Your task to perform on an android device: Open Chrome and go to settings Image 0: 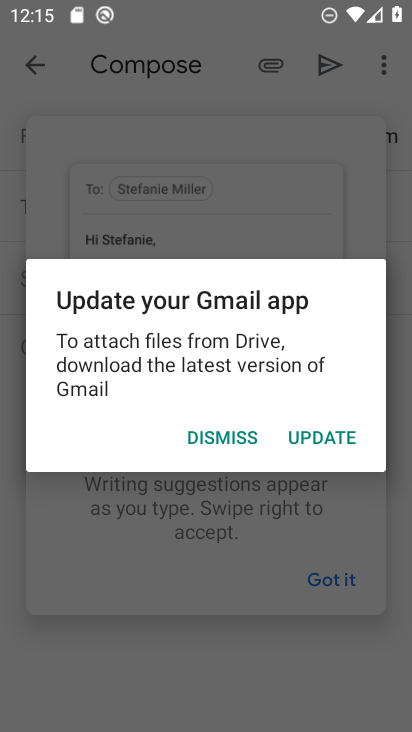
Step 0: press home button
Your task to perform on an android device: Open Chrome and go to settings Image 1: 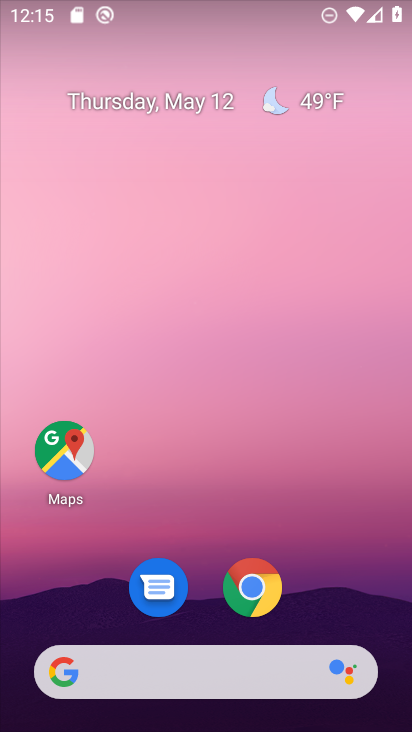
Step 1: click (257, 590)
Your task to perform on an android device: Open Chrome and go to settings Image 2: 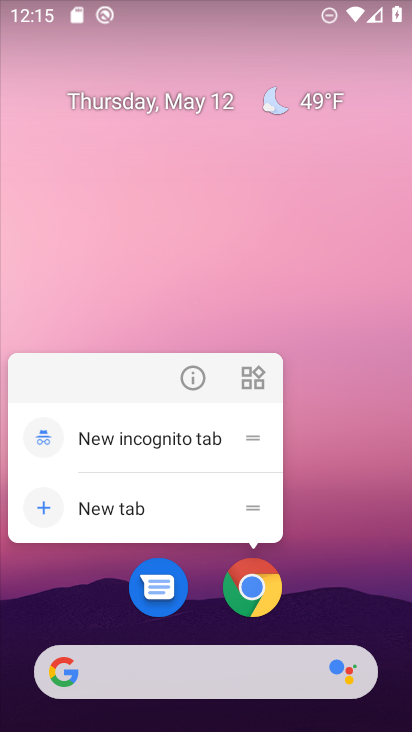
Step 2: click (268, 591)
Your task to perform on an android device: Open Chrome and go to settings Image 3: 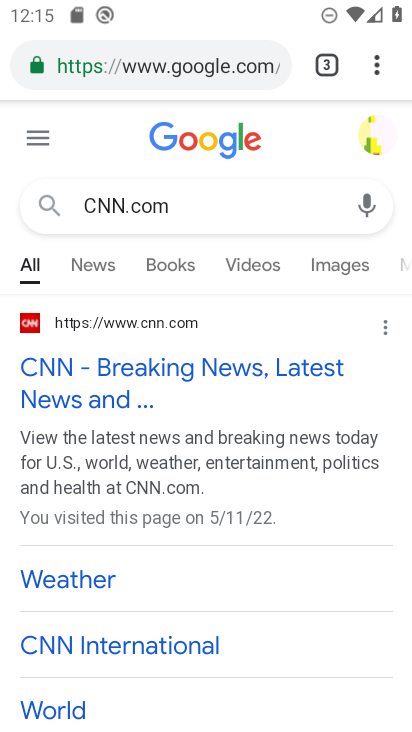
Step 3: click (365, 67)
Your task to perform on an android device: Open Chrome and go to settings Image 4: 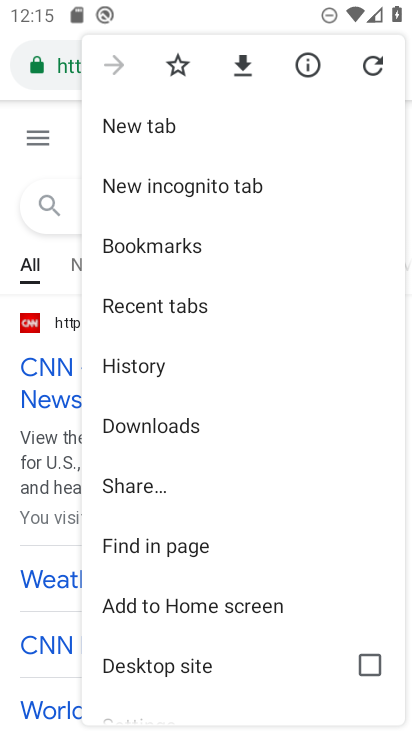
Step 4: drag from (267, 624) to (297, 270)
Your task to perform on an android device: Open Chrome and go to settings Image 5: 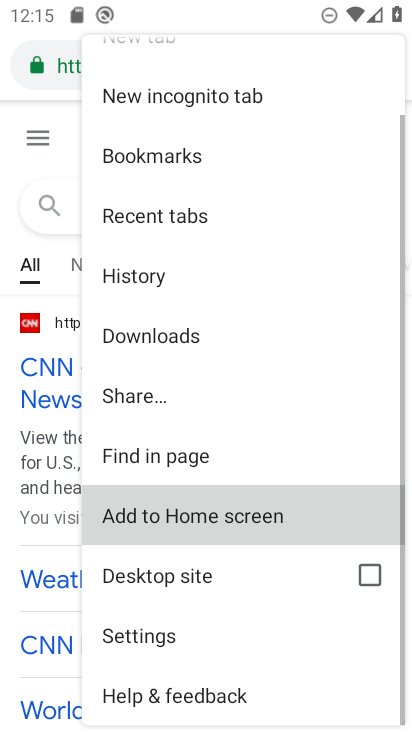
Step 5: drag from (238, 509) to (271, 208)
Your task to perform on an android device: Open Chrome and go to settings Image 6: 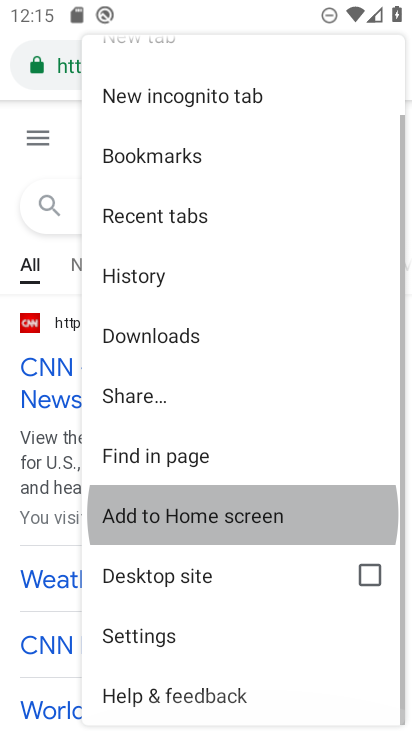
Step 6: drag from (265, 525) to (278, 248)
Your task to perform on an android device: Open Chrome and go to settings Image 7: 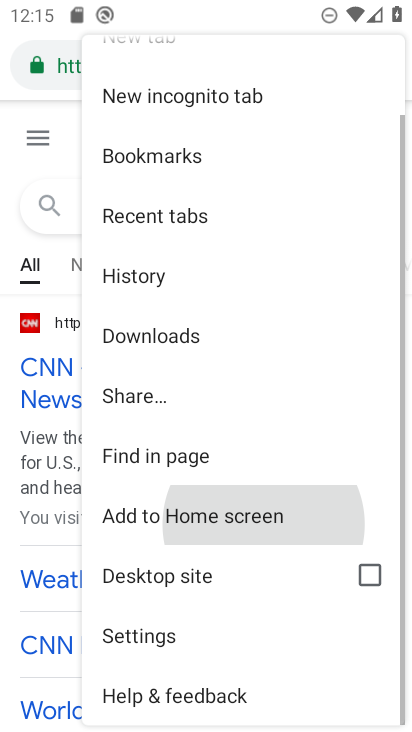
Step 7: drag from (276, 583) to (262, 245)
Your task to perform on an android device: Open Chrome and go to settings Image 8: 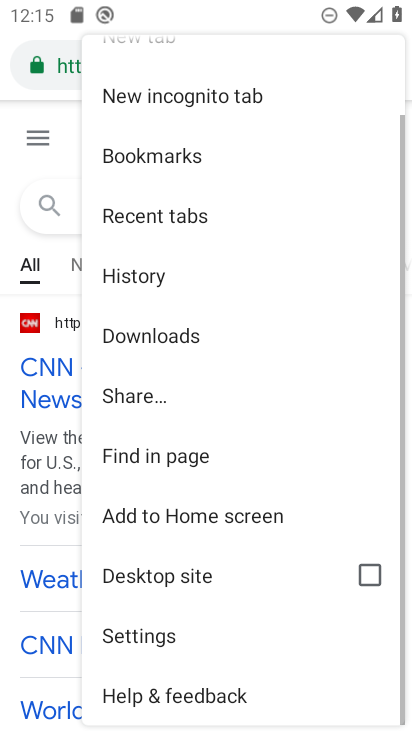
Step 8: click (169, 643)
Your task to perform on an android device: Open Chrome and go to settings Image 9: 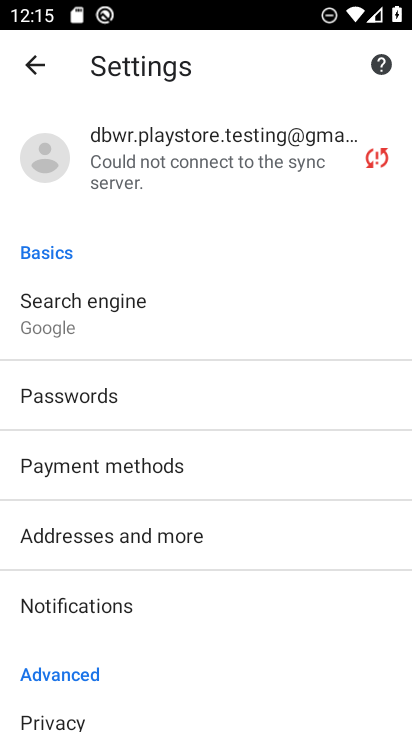
Step 9: task complete